Your task to perform on an android device: Search for seafood restaurants on Google Maps Image 0: 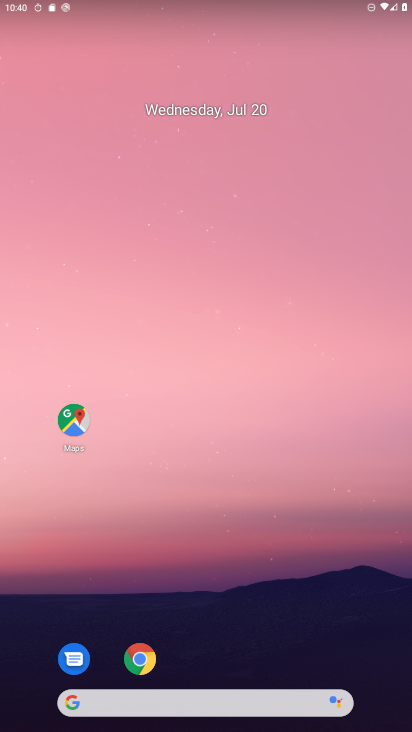
Step 0: drag from (327, 618) to (306, 48)
Your task to perform on an android device: Search for seafood restaurants on Google Maps Image 1: 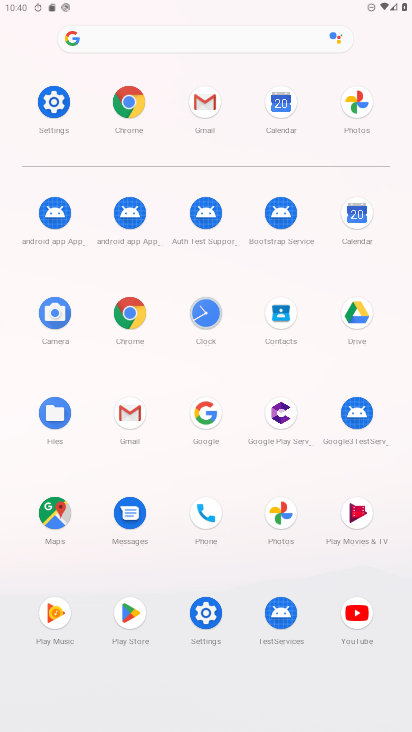
Step 1: click (50, 509)
Your task to perform on an android device: Search for seafood restaurants on Google Maps Image 2: 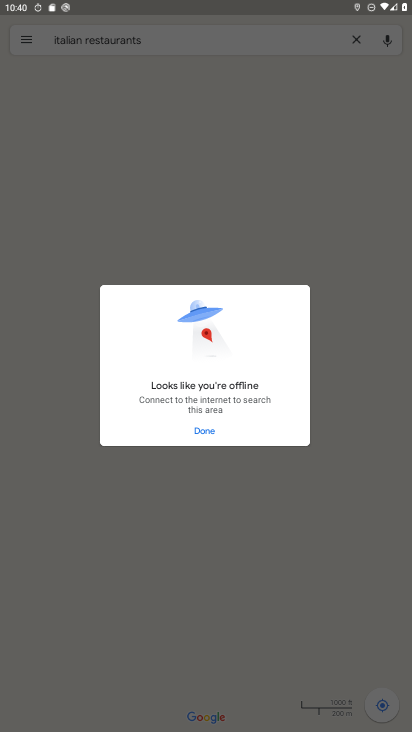
Step 2: click (216, 433)
Your task to perform on an android device: Search for seafood restaurants on Google Maps Image 3: 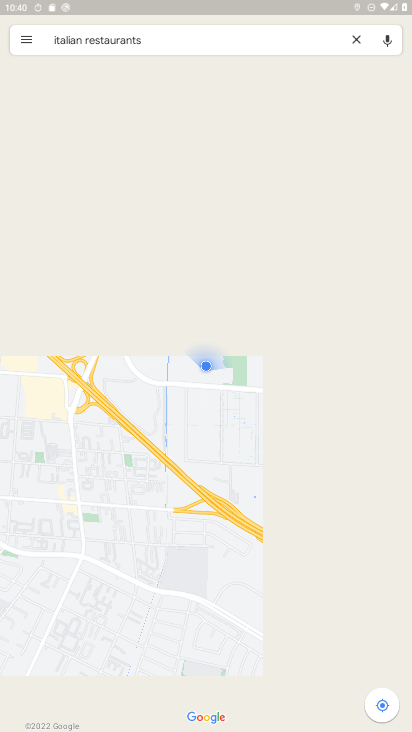
Step 3: click (270, 31)
Your task to perform on an android device: Search for seafood restaurants on Google Maps Image 4: 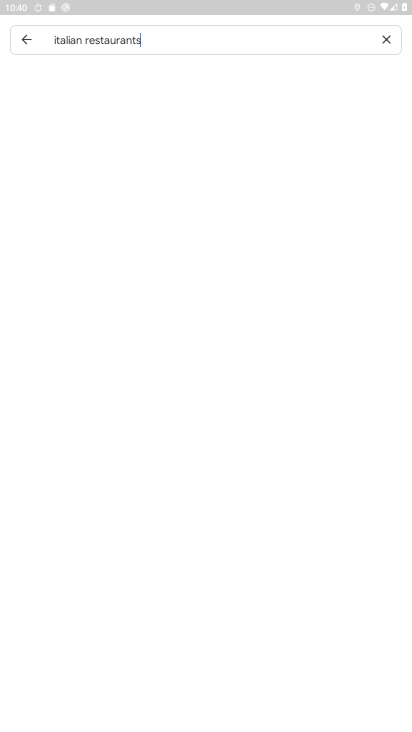
Step 4: click (386, 40)
Your task to perform on an android device: Search for seafood restaurants on Google Maps Image 5: 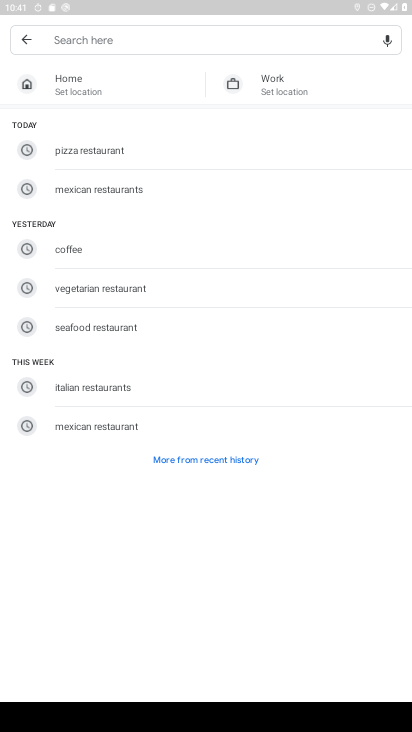
Step 5: click (195, 39)
Your task to perform on an android device: Search for seafood restaurants on Google Maps Image 6: 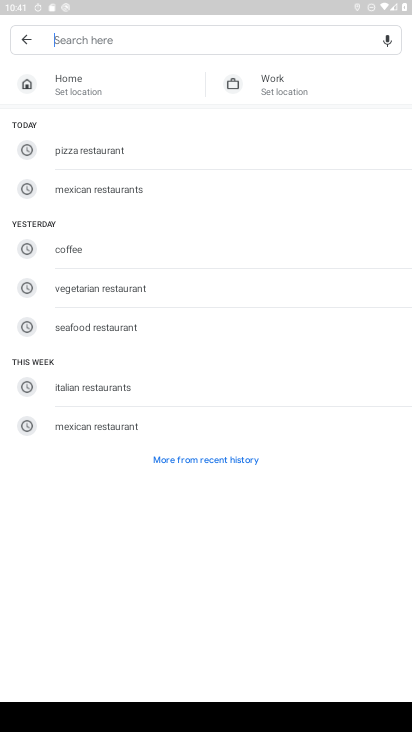
Step 6: type "seafood restaurants"
Your task to perform on an android device: Search for seafood restaurants on Google Maps Image 7: 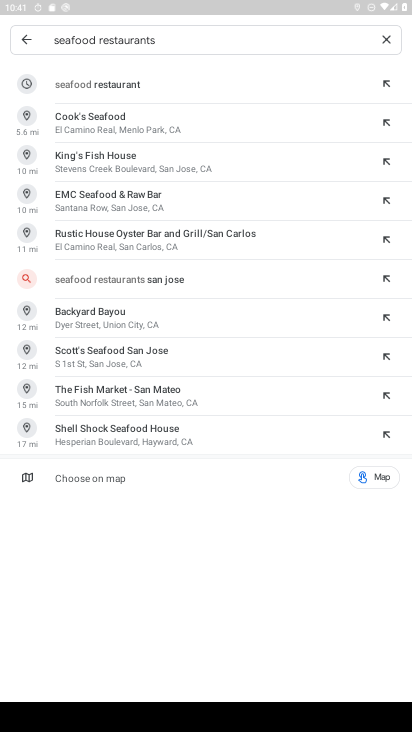
Step 7: press enter
Your task to perform on an android device: Search for seafood restaurants on Google Maps Image 8: 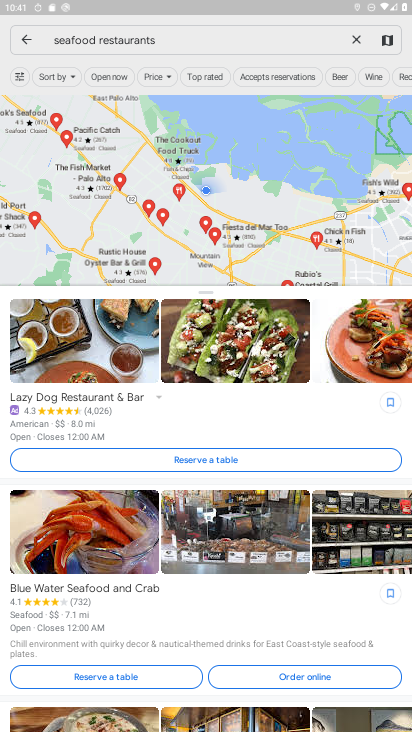
Step 8: task complete